Your task to perform on an android device: open app "Move to iOS" Image 0: 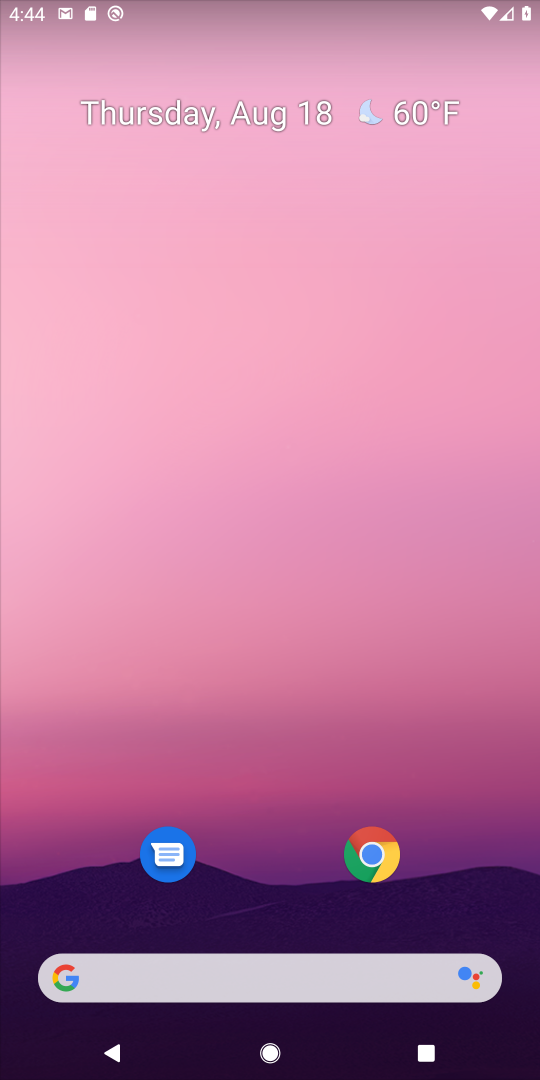
Step 0: drag from (252, 651) to (254, 2)
Your task to perform on an android device: open app "Move to iOS" Image 1: 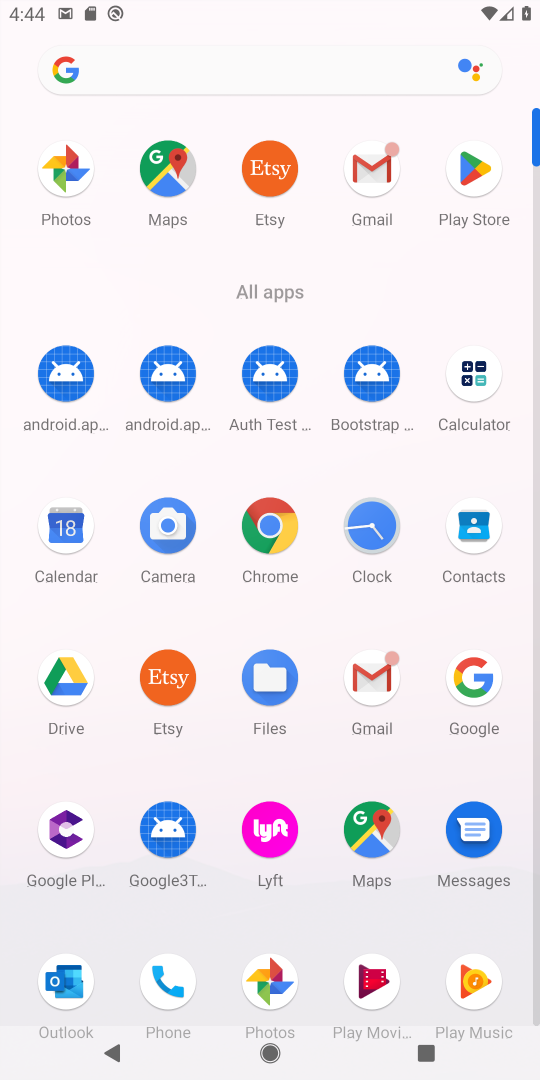
Step 1: click (472, 185)
Your task to perform on an android device: open app "Move to iOS" Image 2: 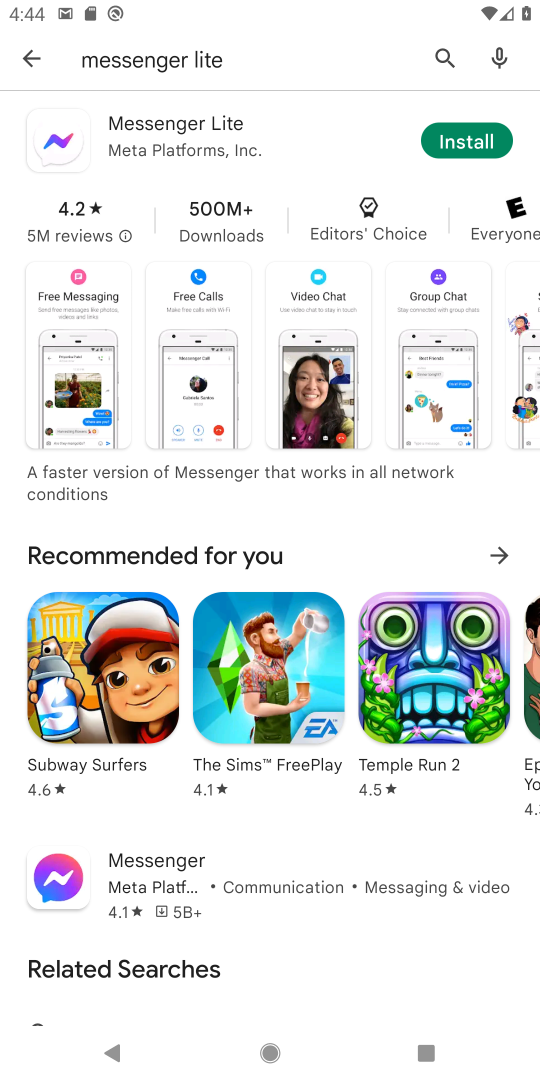
Step 2: click (24, 52)
Your task to perform on an android device: open app "Move to iOS" Image 3: 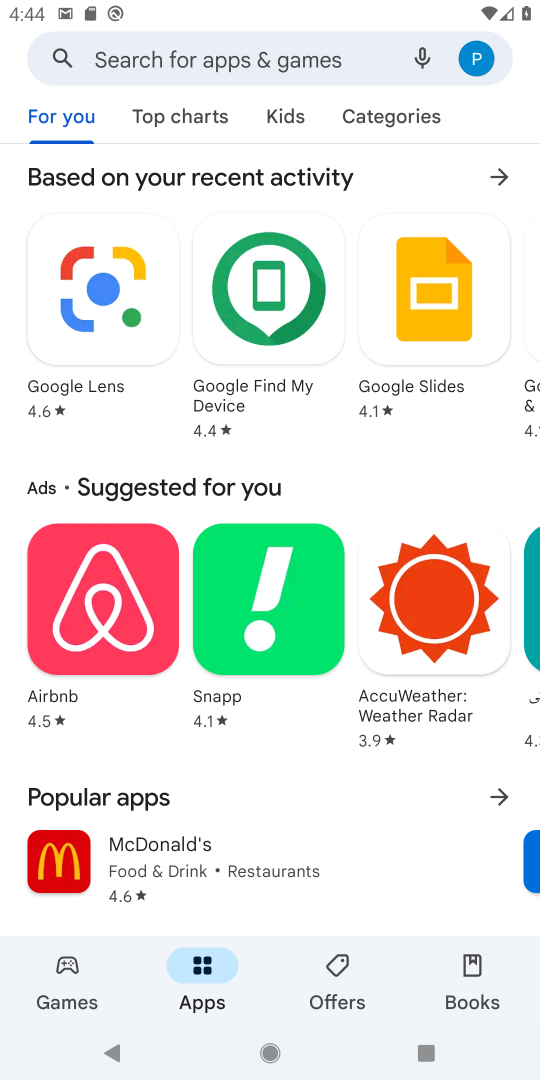
Step 3: click (188, 60)
Your task to perform on an android device: open app "Move to iOS" Image 4: 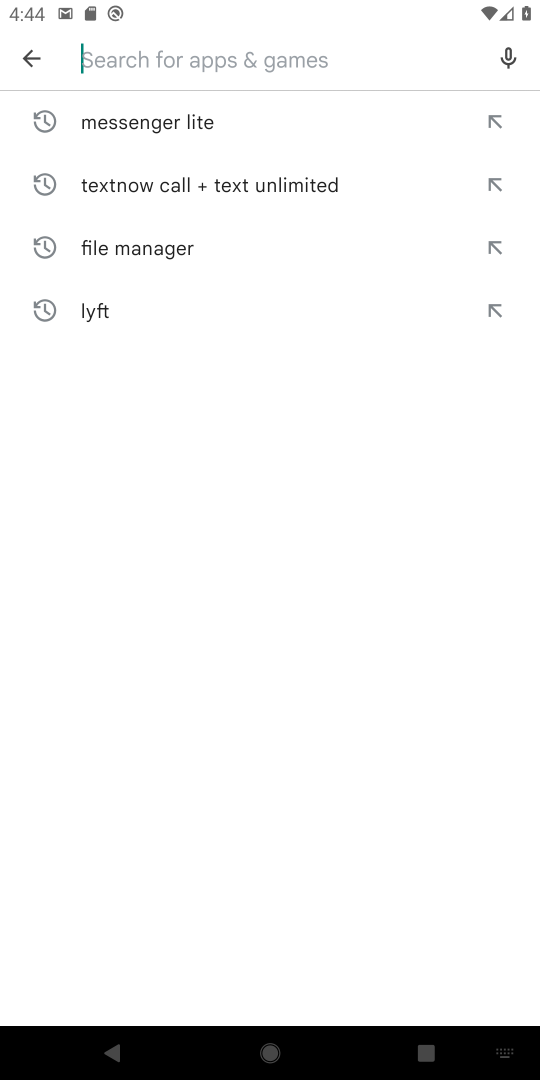
Step 4: type "Move to iOS"
Your task to perform on an android device: open app "Move to iOS" Image 5: 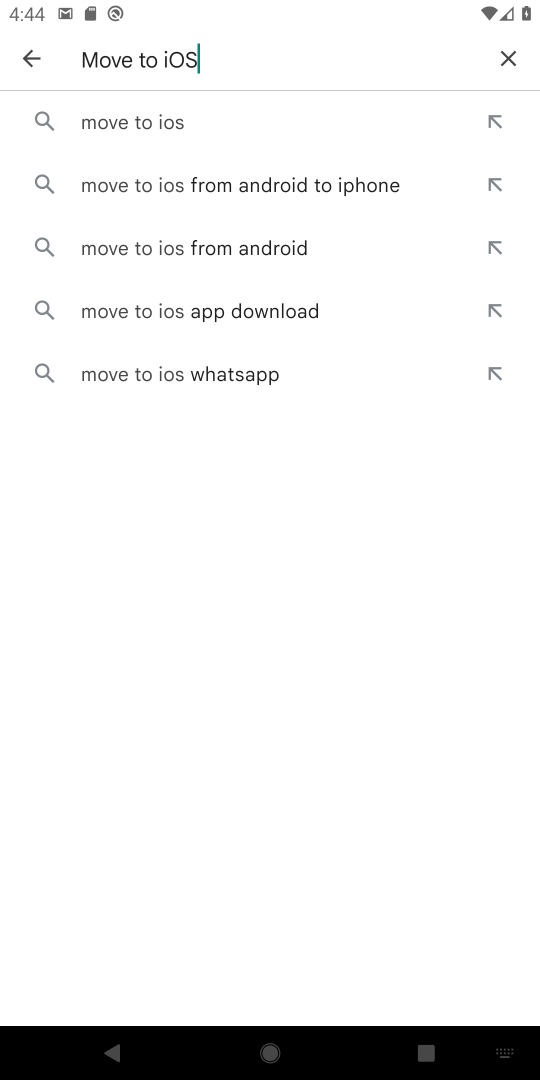
Step 5: click (169, 119)
Your task to perform on an android device: open app "Move to iOS" Image 6: 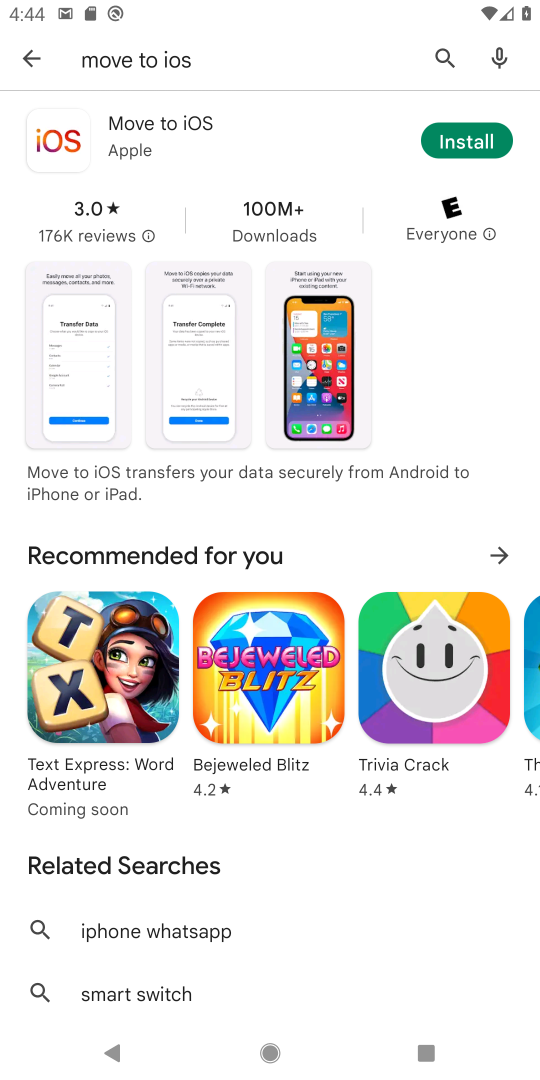
Step 6: click (459, 144)
Your task to perform on an android device: open app "Move to iOS" Image 7: 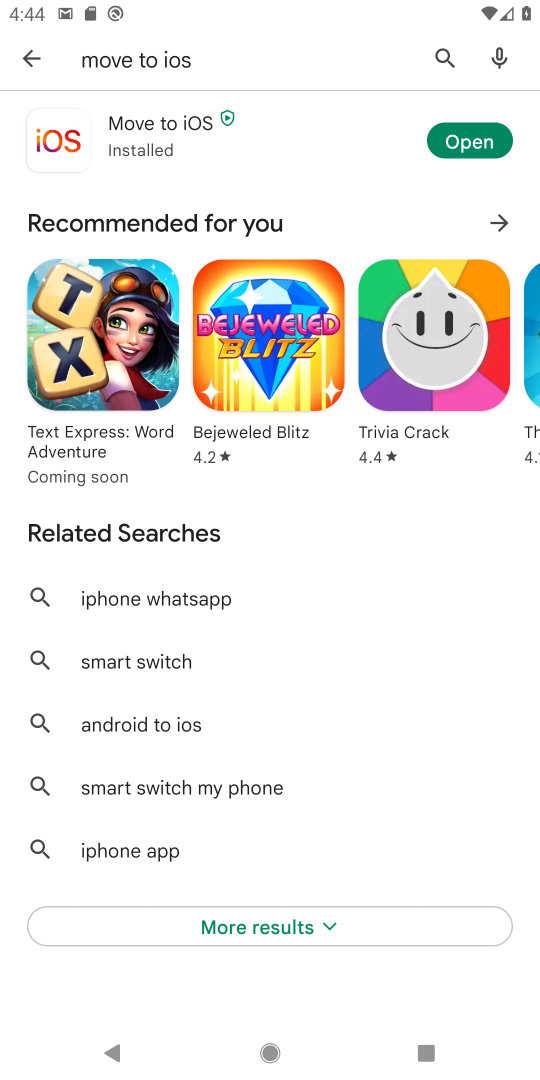
Step 7: click (473, 130)
Your task to perform on an android device: open app "Move to iOS" Image 8: 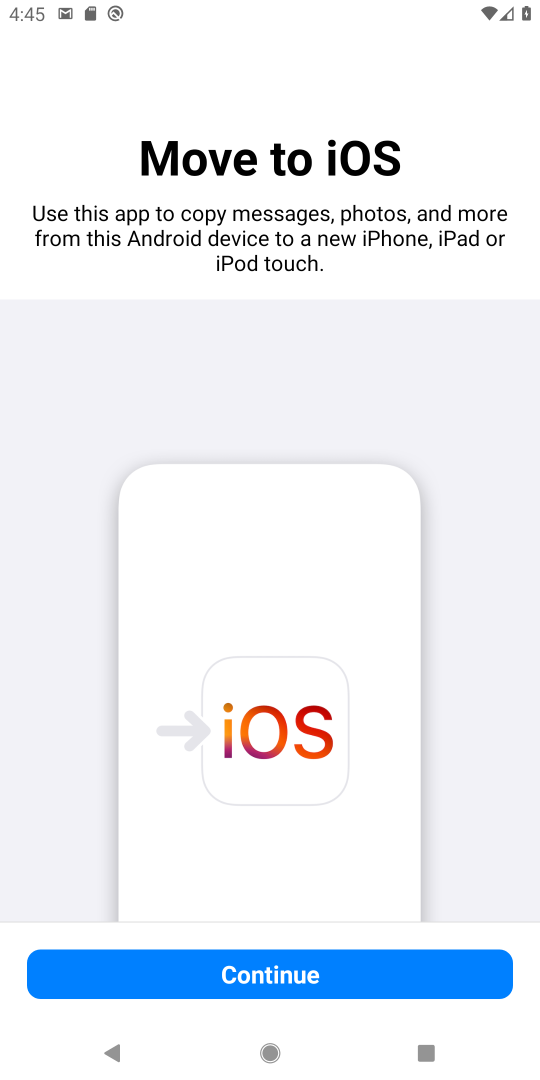
Step 8: task complete